Your task to perform on an android device: Open settings on Google Maps Image 0: 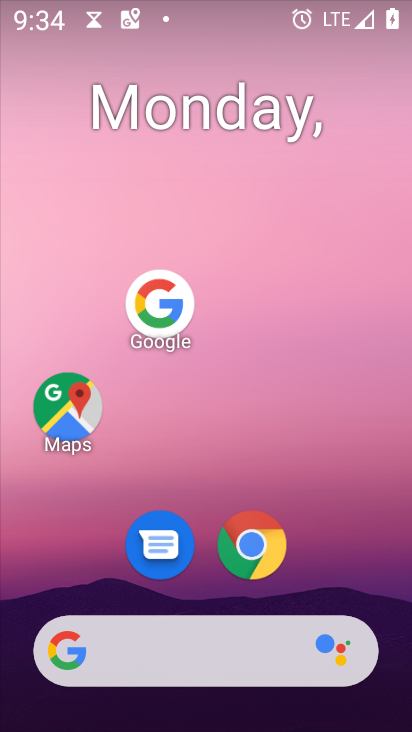
Step 0: press home button
Your task to perform on an android device: Open settings on Google Maps Image 1: 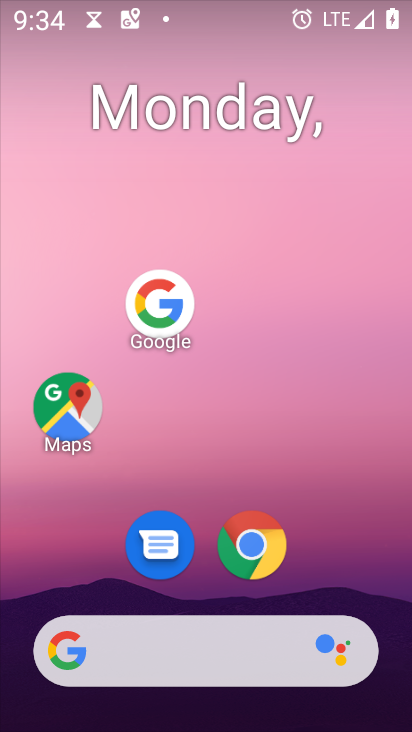
Step 1: click (77, 419)
Your task to perform on an android device: Open settings on Google Maps Image 2: 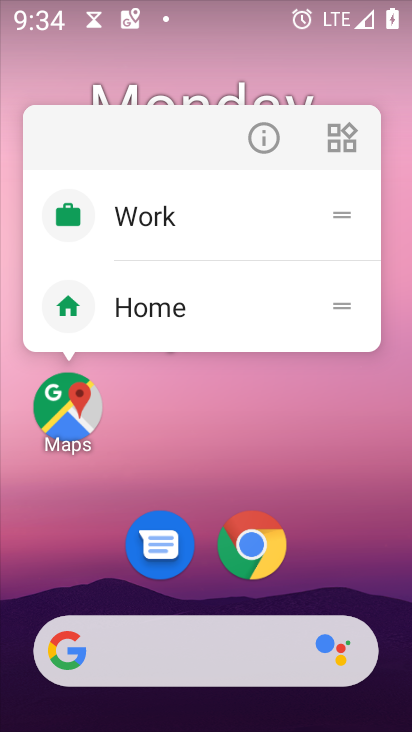
Step 2: click (66, 415)
Your task to perform on an android device: Open settings on Google Maps Image 3: 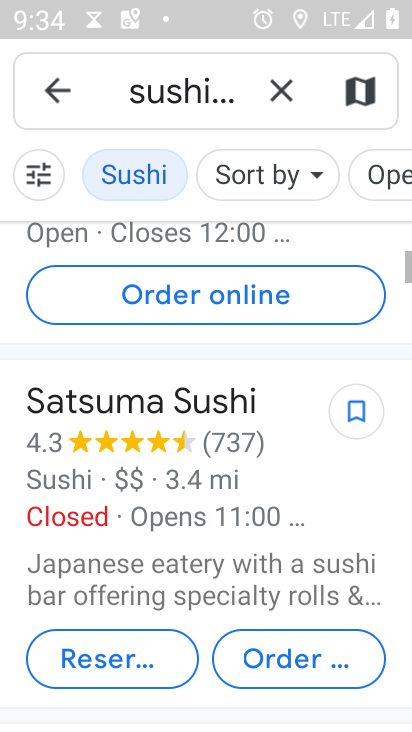
Step 3: click (49, 81)
Your task to perform on an android device: Open settings on Google Maps Image 4: 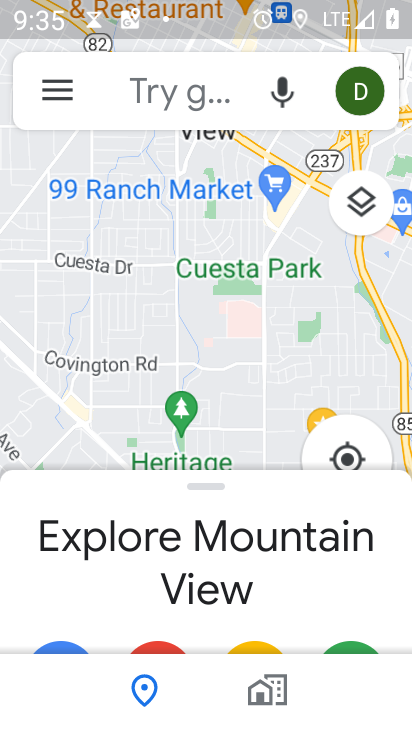
Step 4: click (61, 94)
Your task to perform on an android device: Open settings on Google Maps Image 5: 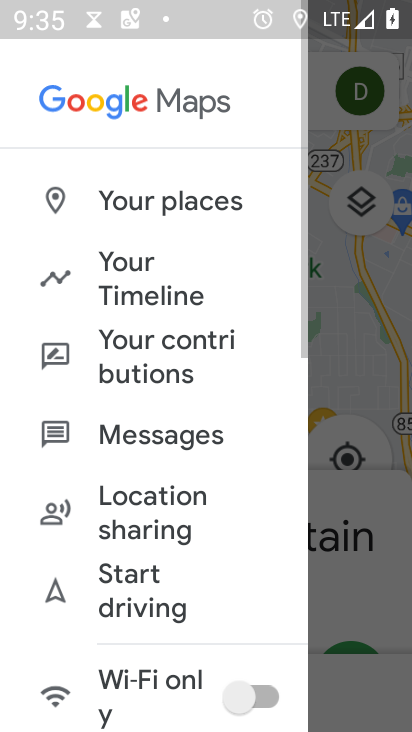
Step 5: drag from (181, 629) to (184, 126)
Your task to perform on an android device: Open settings on Google Maps Image 6: 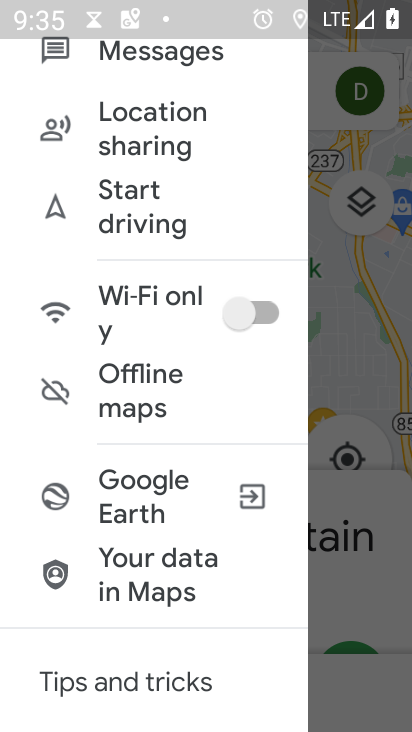
Step 6: drag from (132, 656) to (210, 133)
Your task to perform on an android device: Open settings on Google Maps Image 7: 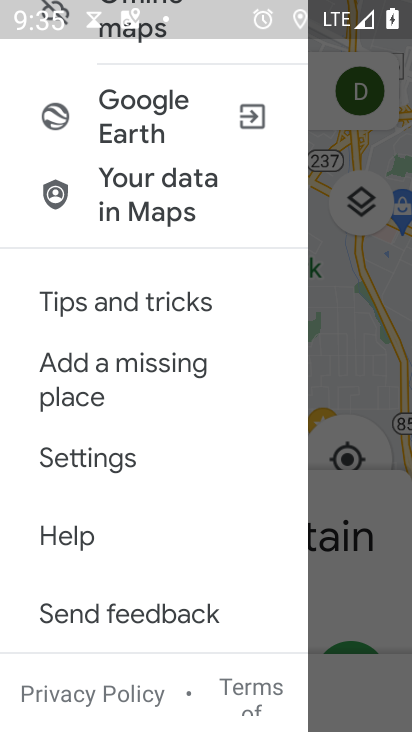
Step 7: click (100, 453)
Your task to perform on an android device: Open settings on Google Maps Image 8: 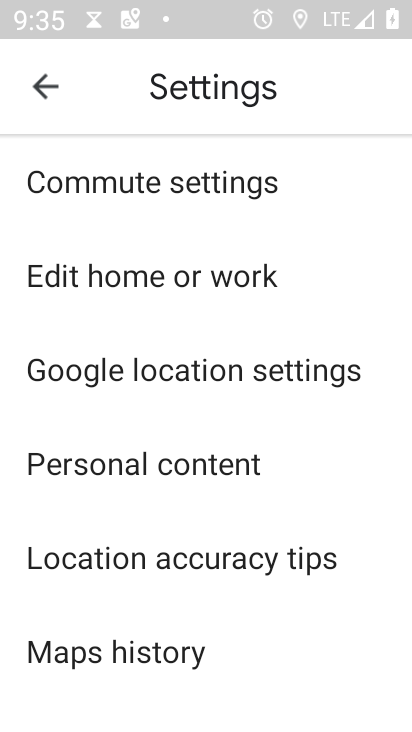
Step 8: task complete